Your task to perform on an android device: Open internet settings Image 0: 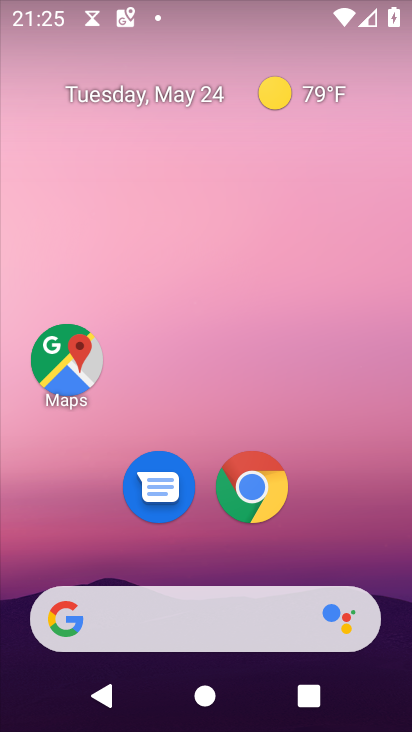
Step 0: press home button
Your task to perform on an android device: Open internet settings Image 1: 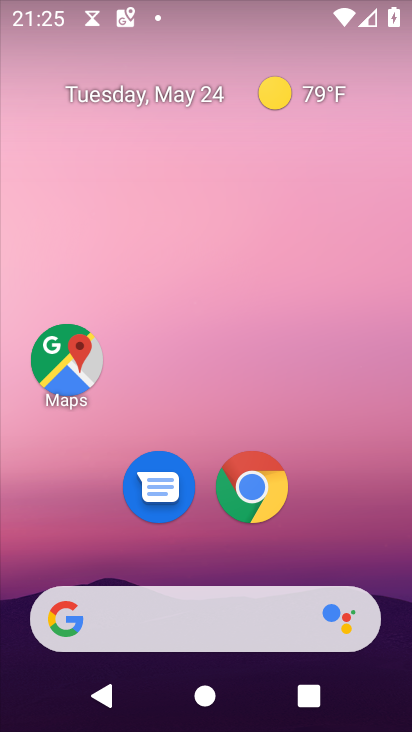
Step 1: drag from (333, 524) to (341, 59)
Your task to perform on an android device: Open internet settings Image 2: 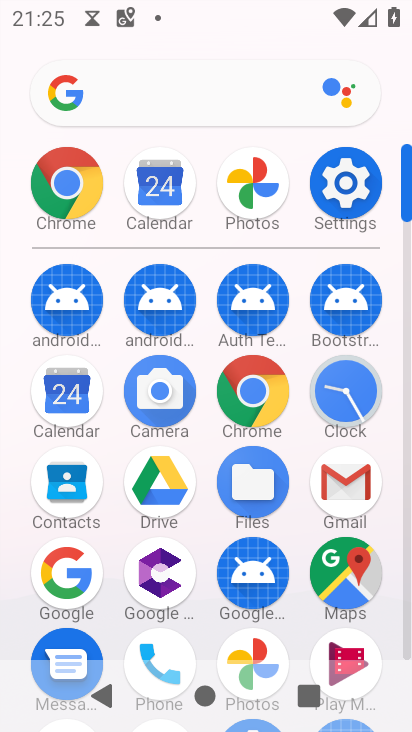
Step 2: click (348, 190)
Your task to perform on an android device: Open internet settings Image 3: 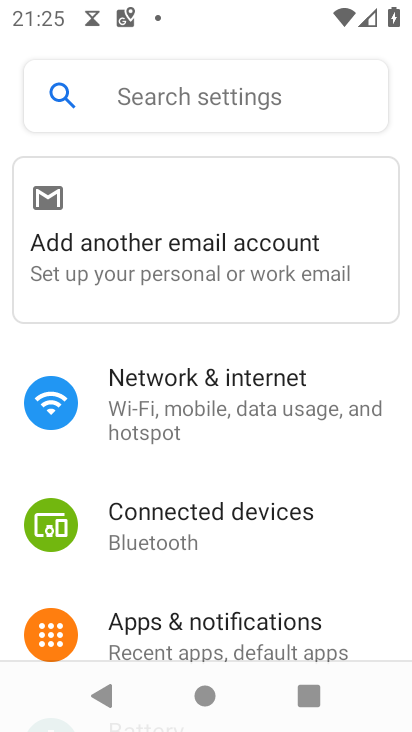
Step 3: click (224, 419)
Your task to perform on an android device: Open internet settings Image 4: 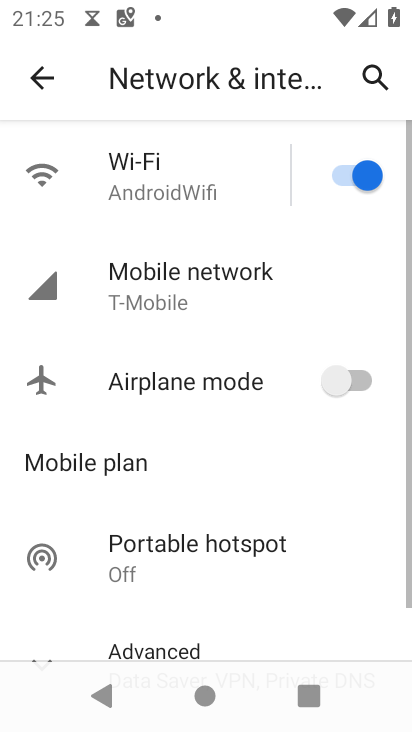
Step 4: task complete